Your task to perform on an android device: Go to Maps Image 0: 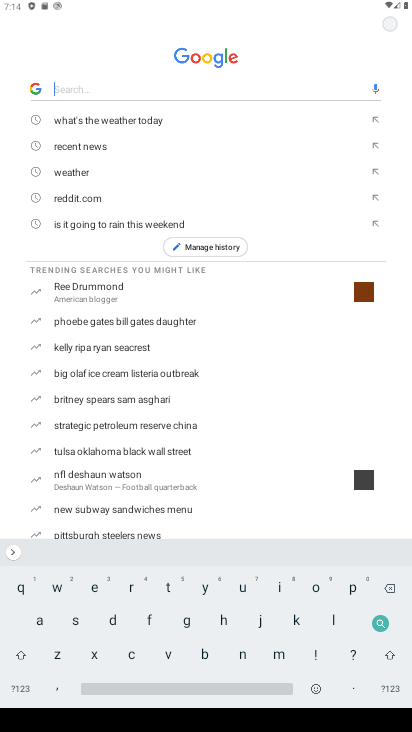
Step 0: press home button
Your task to perform on an android device: Go to Maps Image 1: 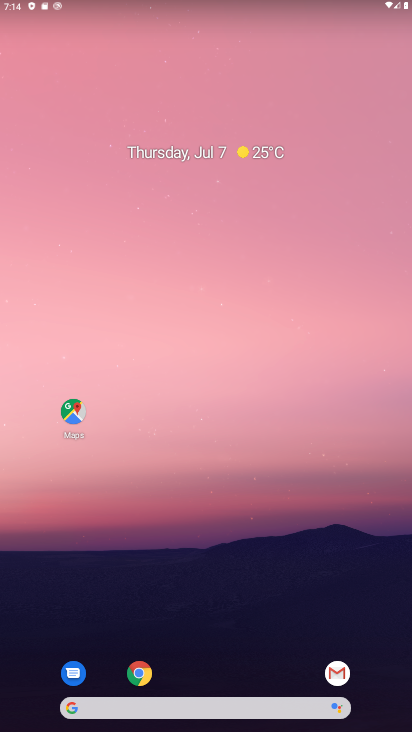
Step 1: click (68, 400)
Your task to perform on an android device: Go to Maps Image 2: 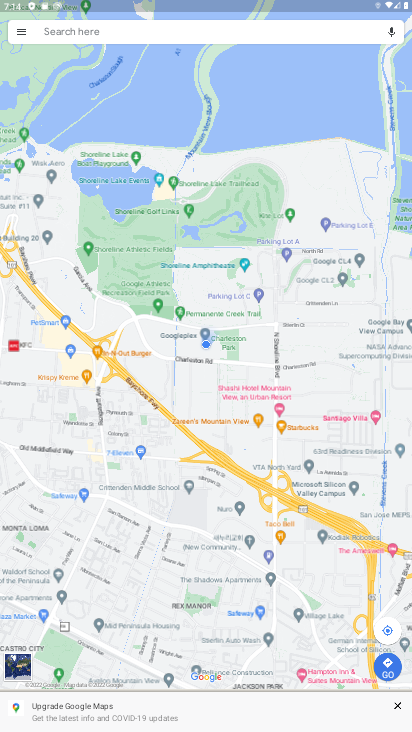
Step 2: click (383, 622)
Your task to perform on an android device: Go to Maps Image 3: 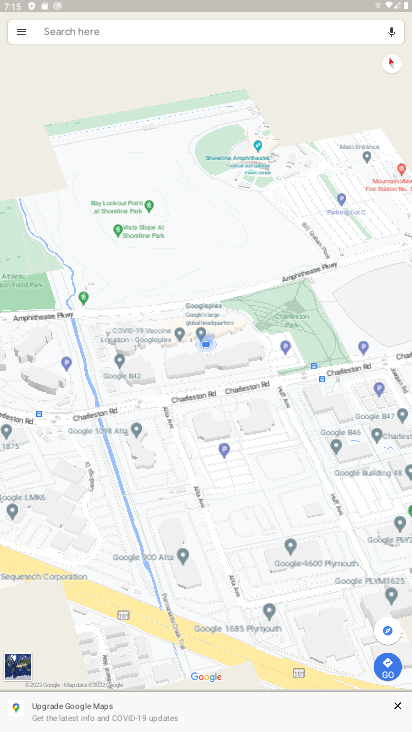
Step 3: task complete